Your task to perform on an android device: change the clock display to digital Image 0: 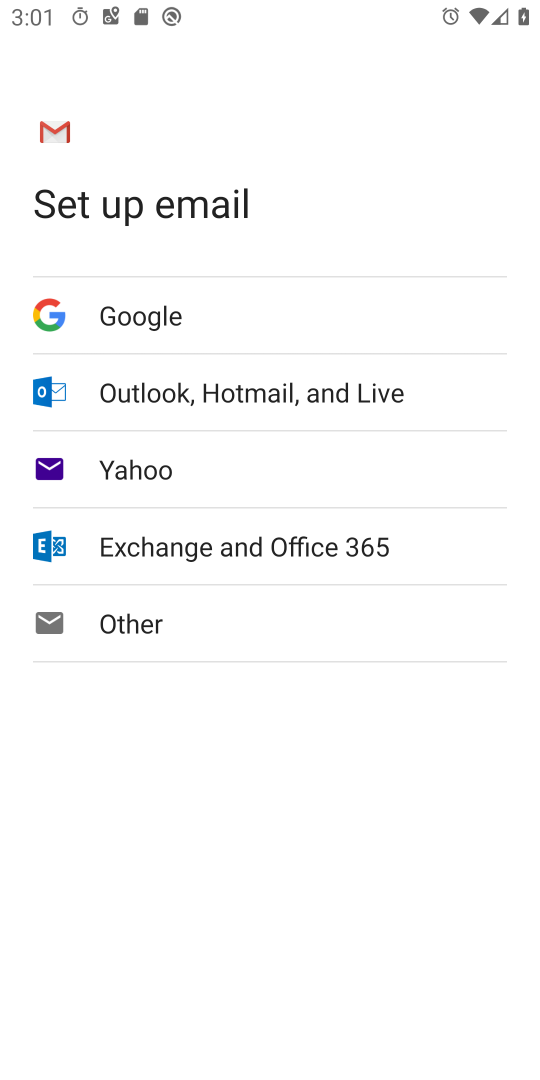
Step 0: press home button
Your task to perform on an android device: change the clock display to digital Image 1: 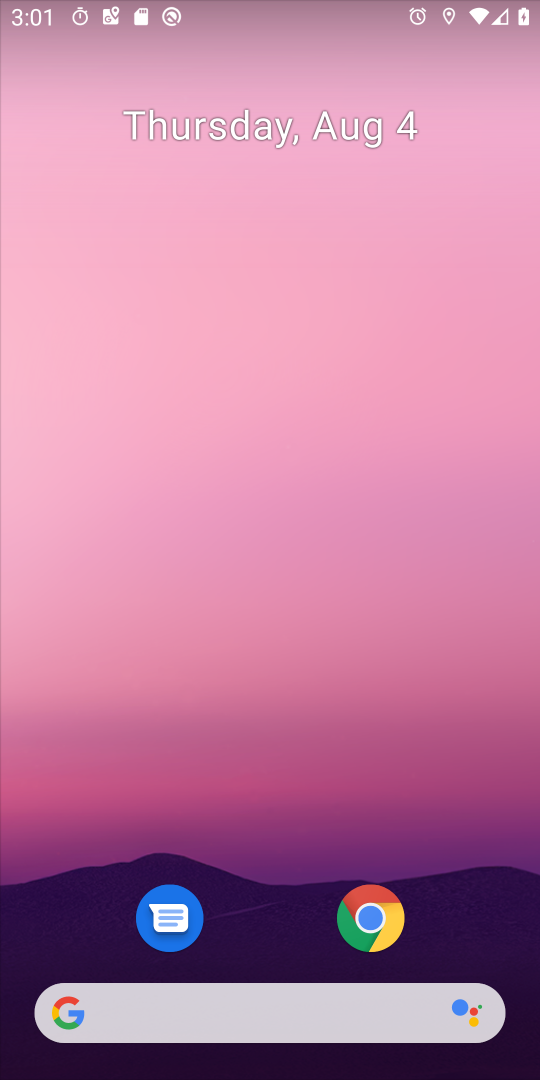
Step 1: drag from (266, 879) to (259, 121)
Your task to perform on an android device: change the clock display to digital Image 2: 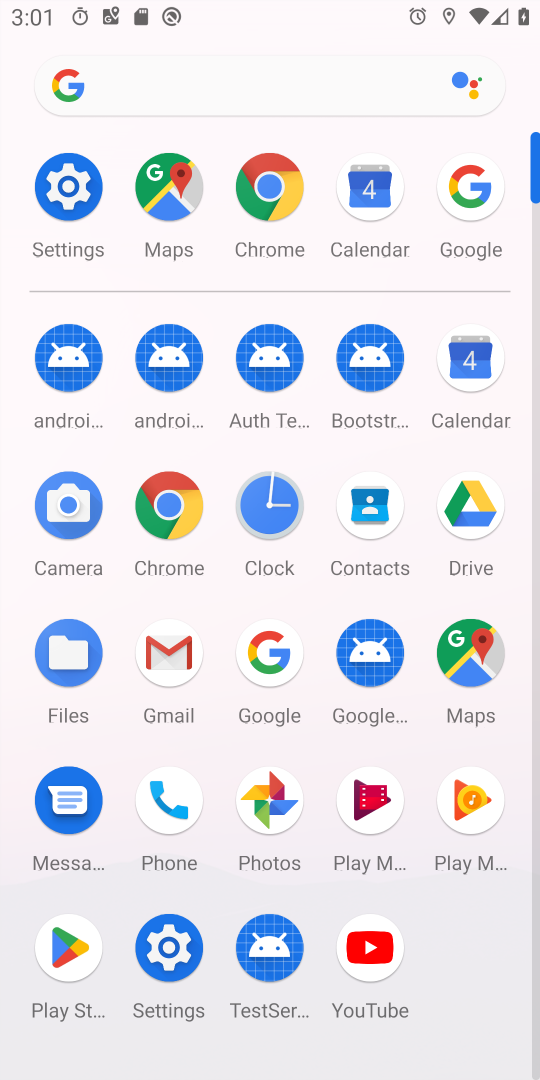
Step 2: click (247, 493)
Your task to perform on an android device: change the clock display to digital Image 3: 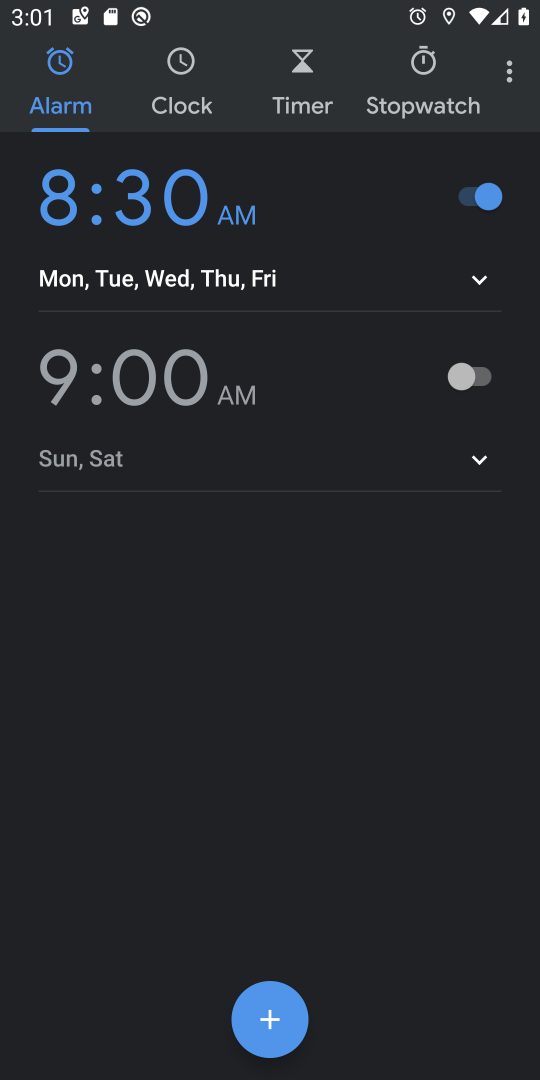
Step 3: click (513, 75)
Your task to perform on an android device: change the clock display to digital Image 4: 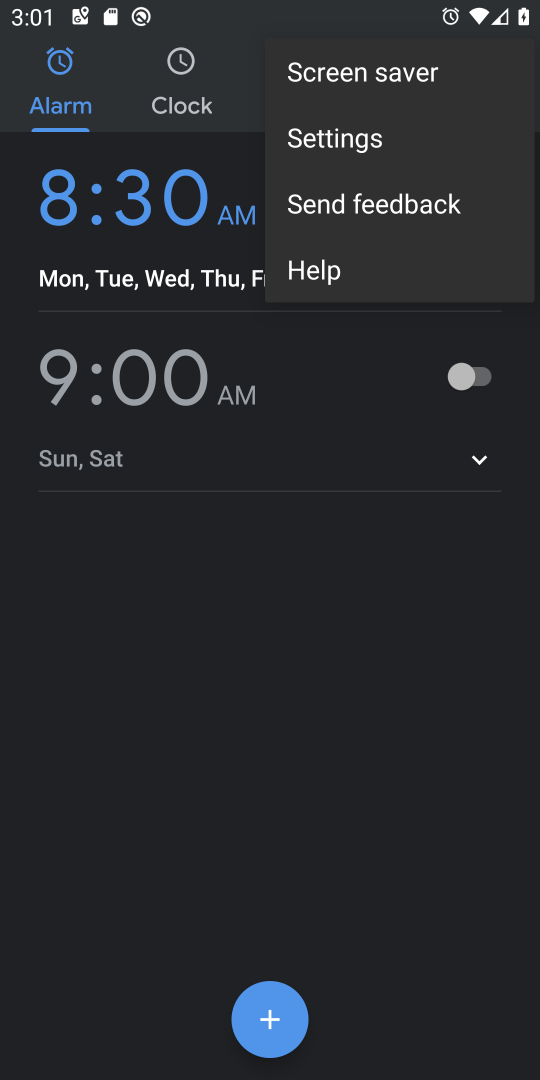
Step 4: click (302, 151)
Your task to perform on an android device: change the clock display to digital Image 5: 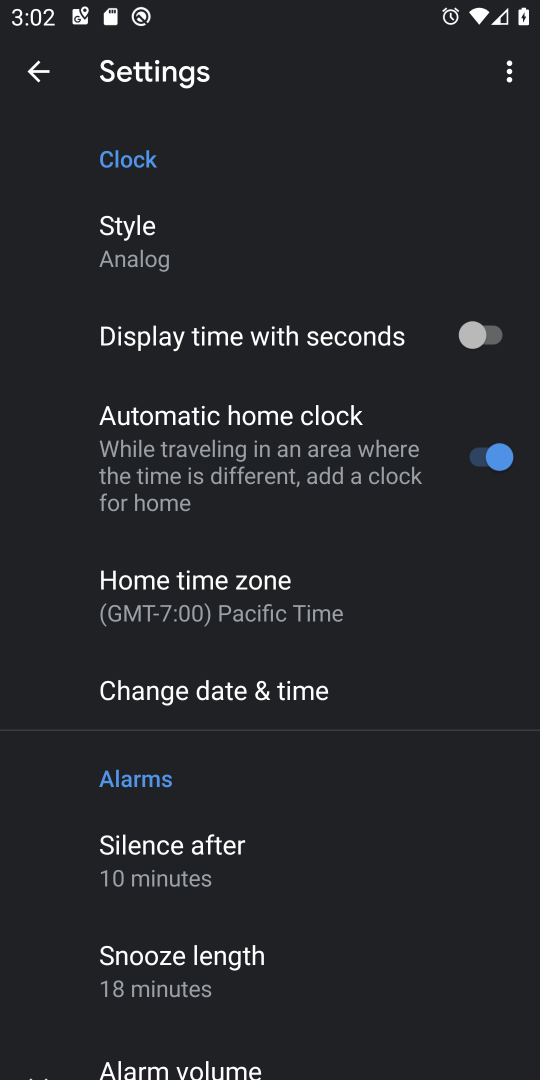
Step 5: click (171, 231)
Your task to perform on an android device: change the clock display to digital Image 6: 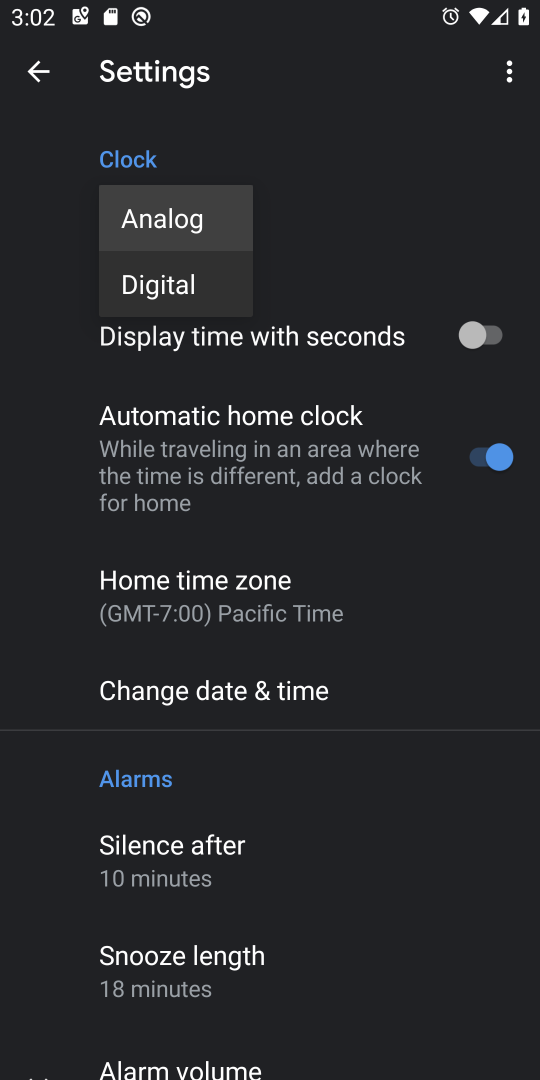
Step 6: click (211, 296)
Your task to perform on an android device: change the clock display to digital Image 7: 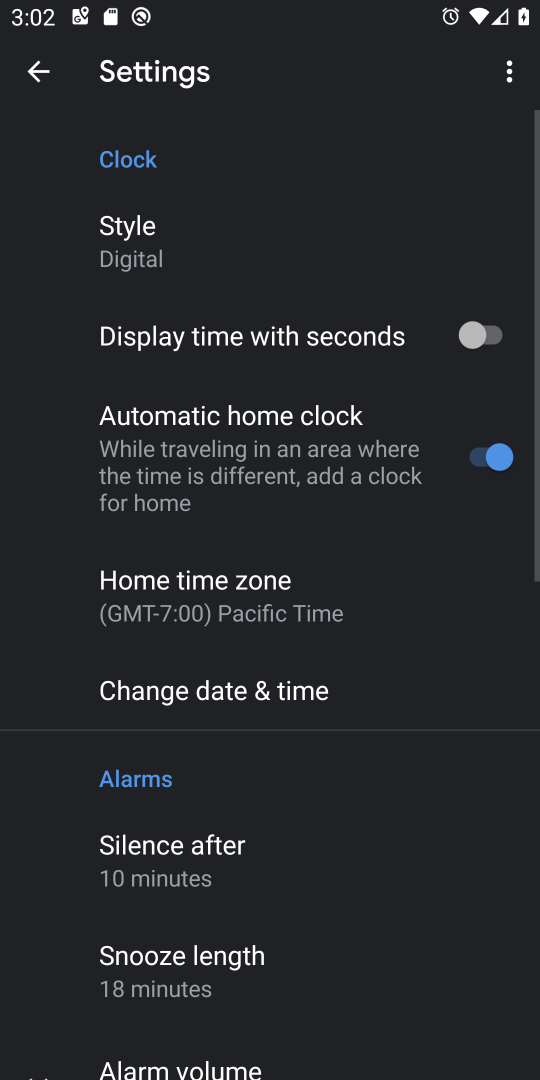
Step 7: task complete